Your task to perform on an android device: all mails in gmail Image 0: 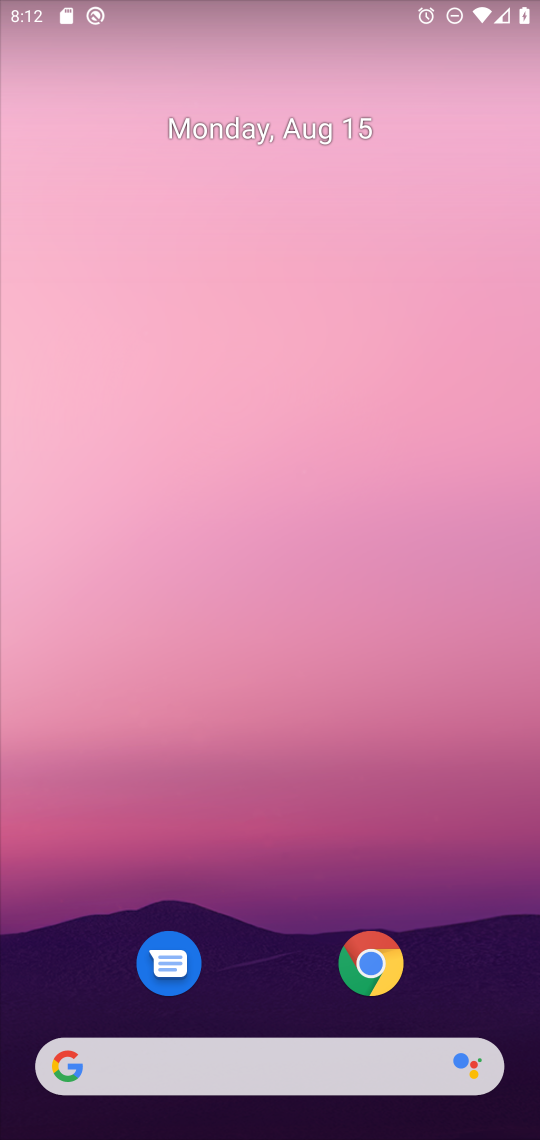
Step 0: drag from (235, 997) to (271, 49)
Your task to perform on an android device: all mails in gmail Image 1: 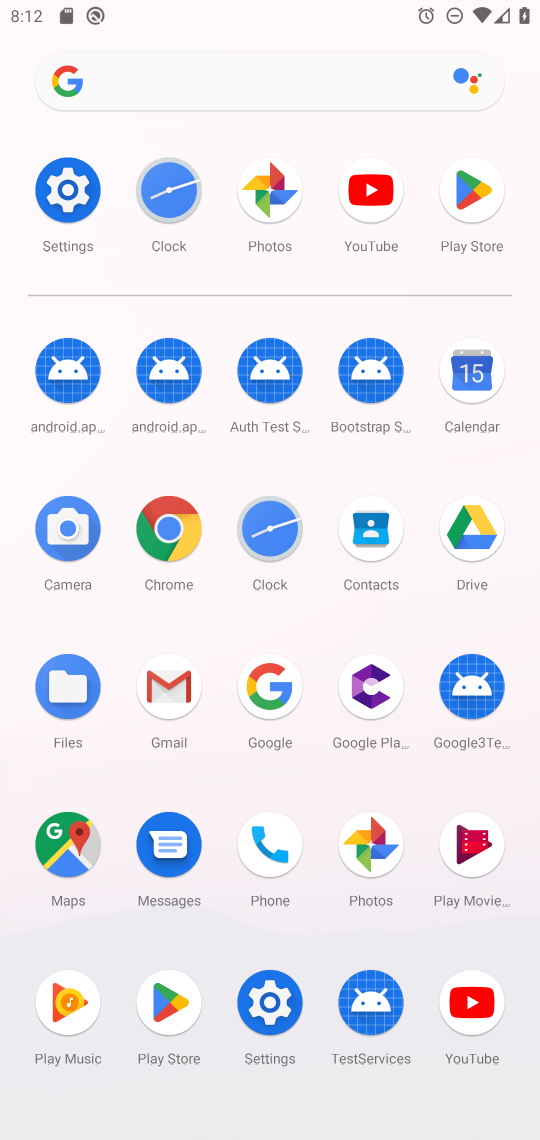
Step 1: click (161, 672)
Your task to perform on an android device: all mails in gmail Image 2: 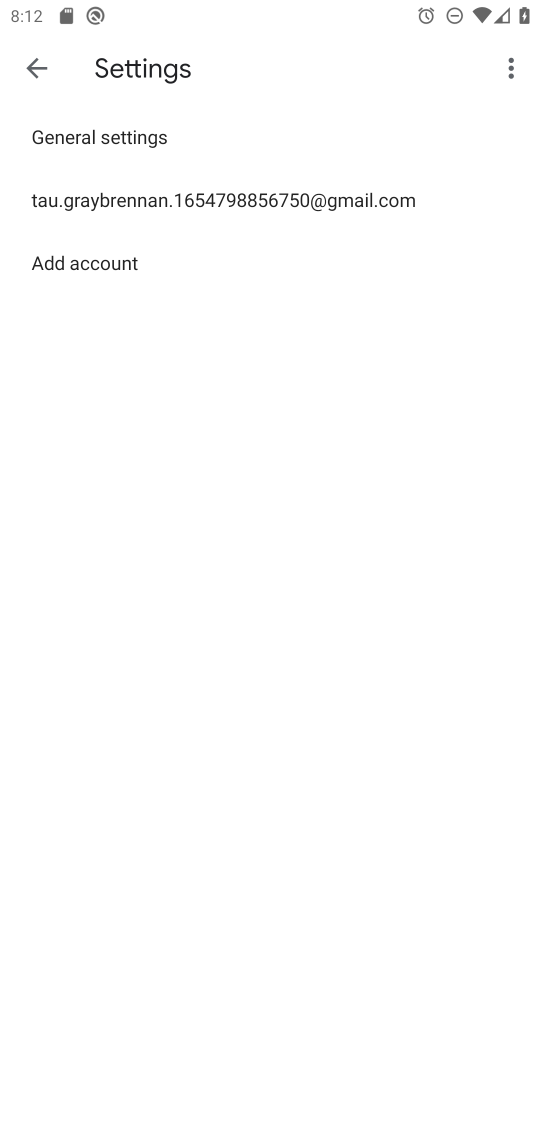
Step 2: click (44, 81)
Your task to perform on an android device: all mails in gmail Image 3: 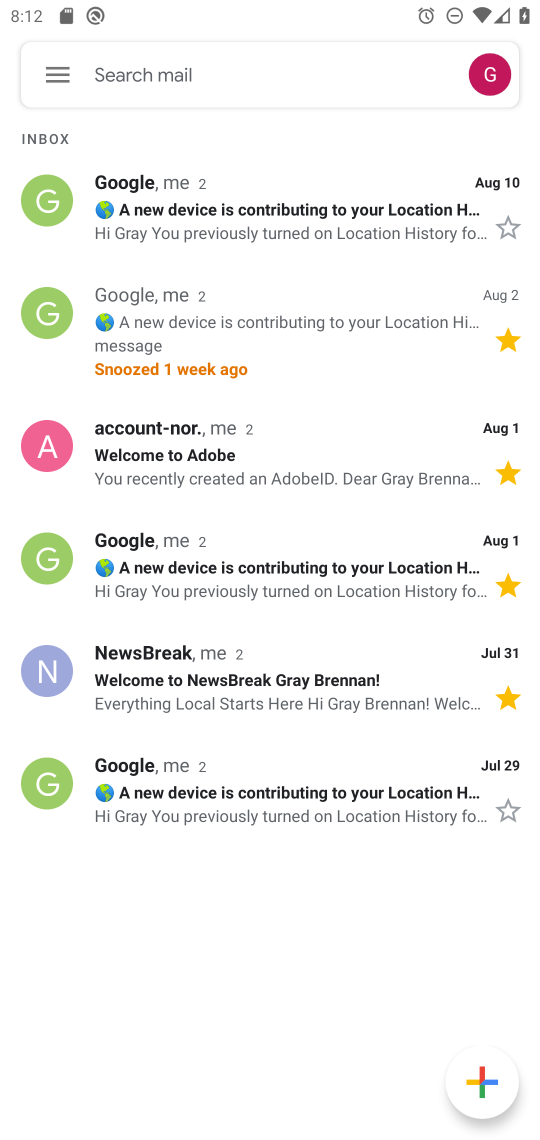
Step 3: click (47, 64)
Your task to perform on an android device: all mails in gmail Image 4: 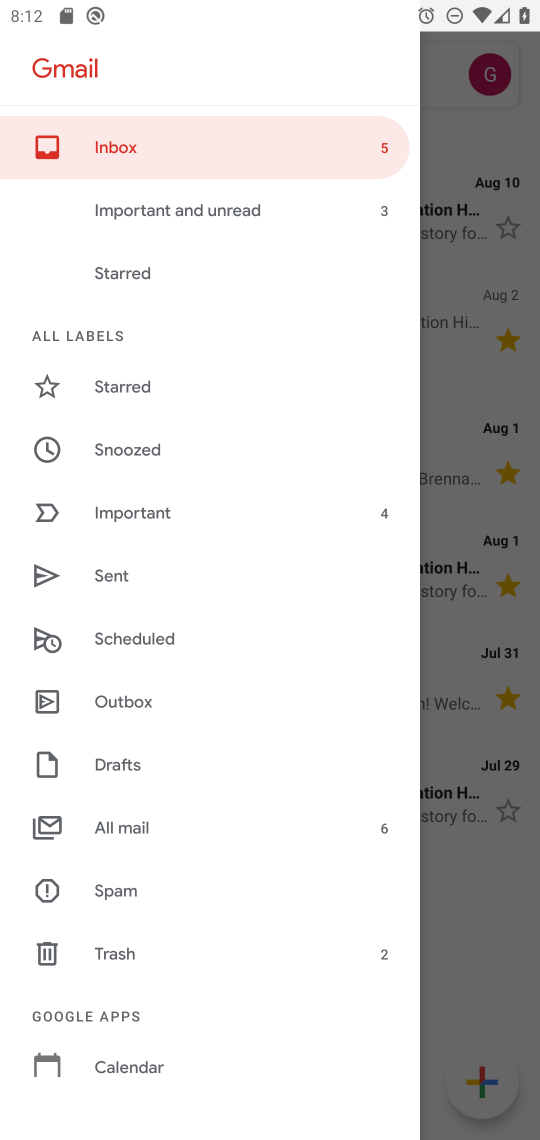
Step 4: click (112, 822)
Your task to perform on an android device: all mails in gmail Image 5: 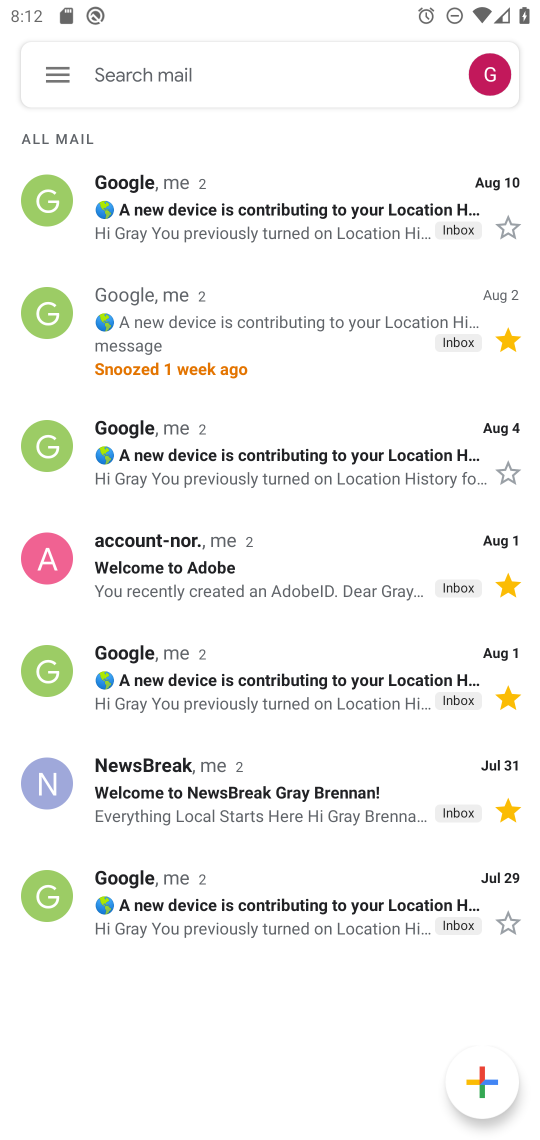
Step 5: task complete